Your task to perform on an android device: Show me recent news Image 0: 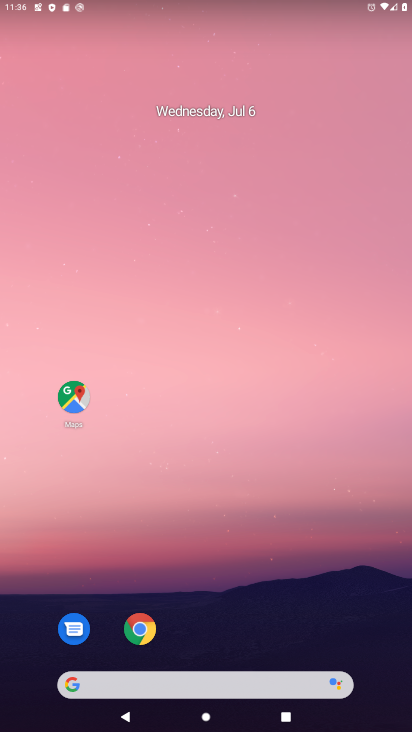
Step 0: drag from (230, 605) to (238, 255)
Your task to perform on an android device: Show me recent news Image 1: 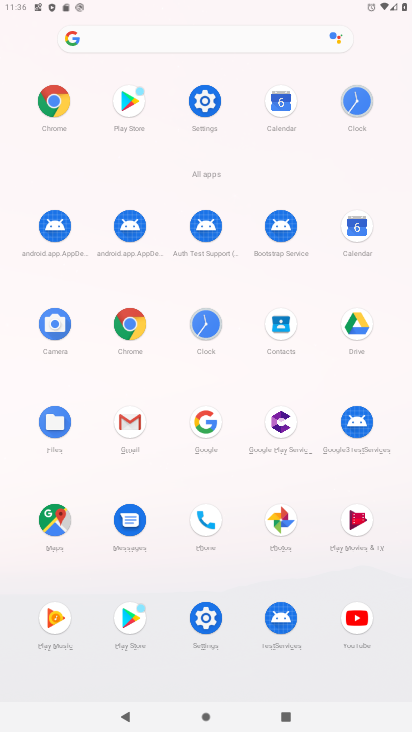
Step 1: click (57, 104)
Your task to perform on an android device: Show me recent news Image 2: 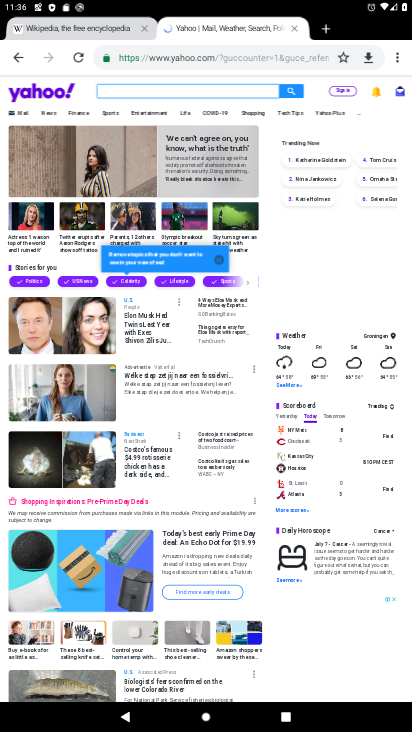
Step 2: click (326, 31)
Your task to perform on an android device: Show me recent news Image 3: 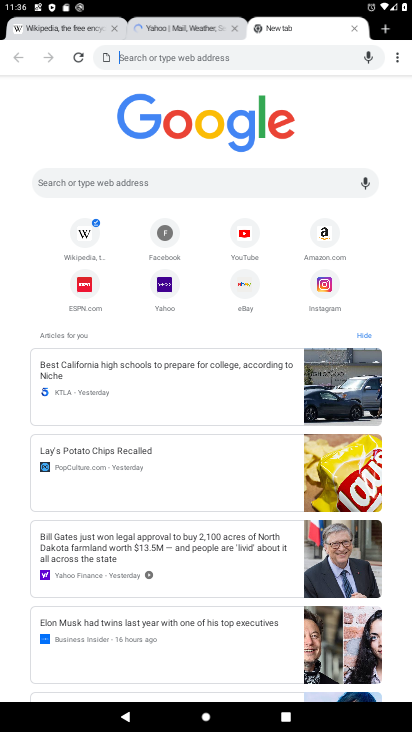
Step 3: click (166, 189)
Your task to perform on an android device: Show me recent news Image 4: 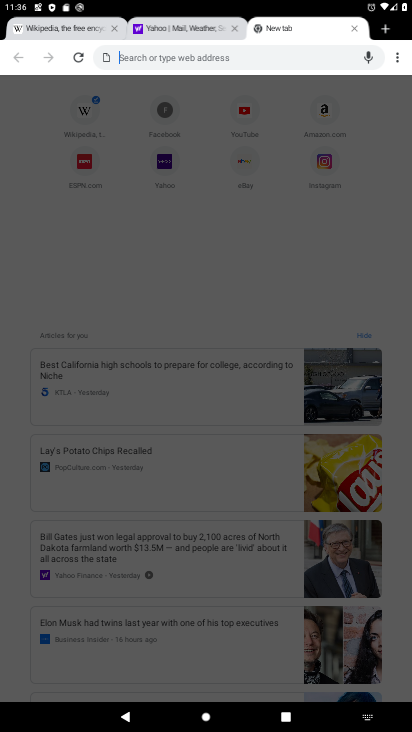
Step 4: type "recent news"
Your task to perform on an android device: Show me recent news Image 5: 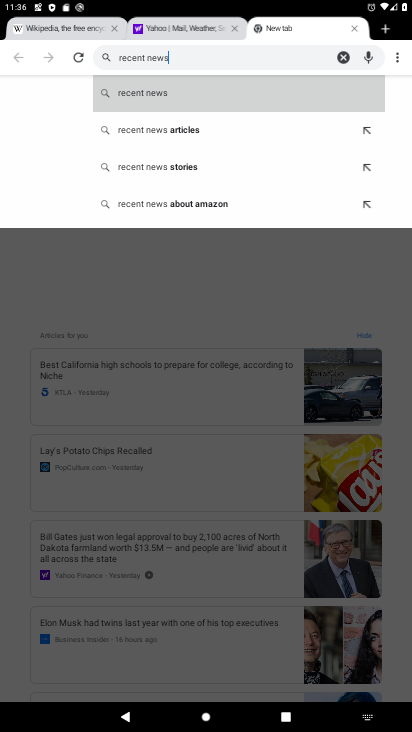
Step 5: click (148, 92)
Your task to perform on an android device: Show me recent news Image 6: 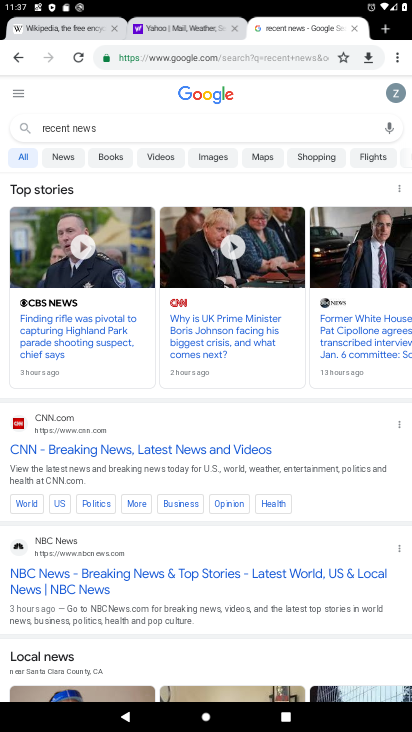
Step 6: task complete